Your task to perform on an android device: What's the weather going to be tomorrow? Image 0: 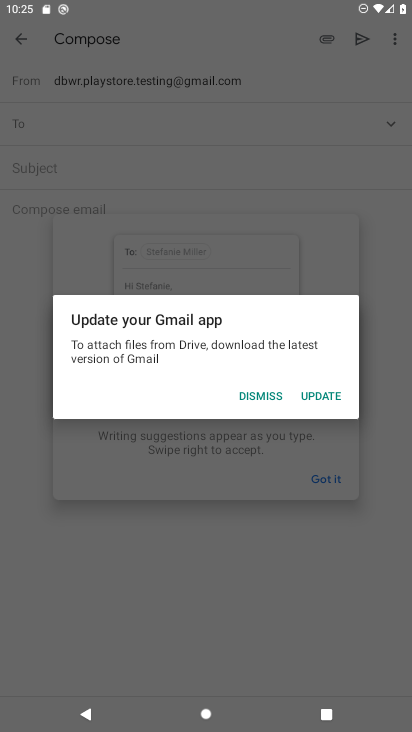
Step 0: press home button
Your task to perform on an android device: What's the weather going to be tomorrow? Image 1: 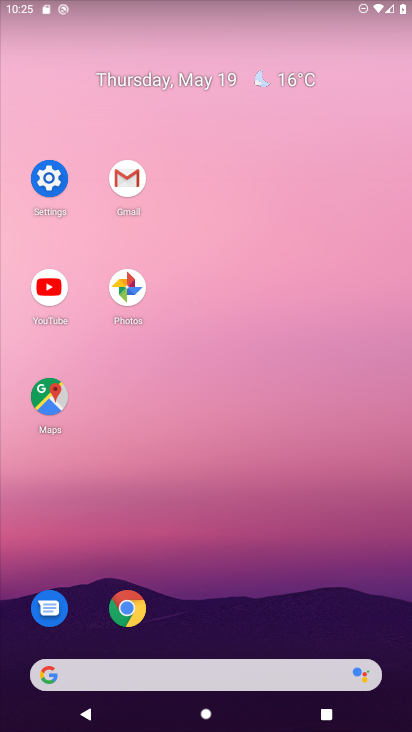
Step 1: drag from (244, 418) to (337, 90)
Your task to perform on an android device: What's the weather going to be tomorrow? Image 2: 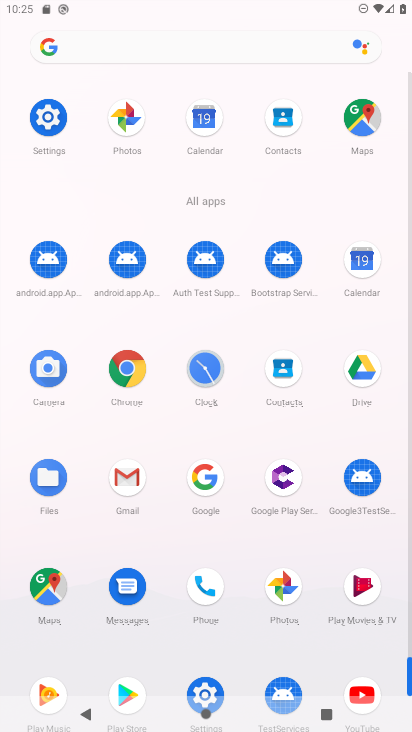
Step 2: click (206, 486)
Your task to perform on an android device: What's the weather going to be tomorrow? Image 3: 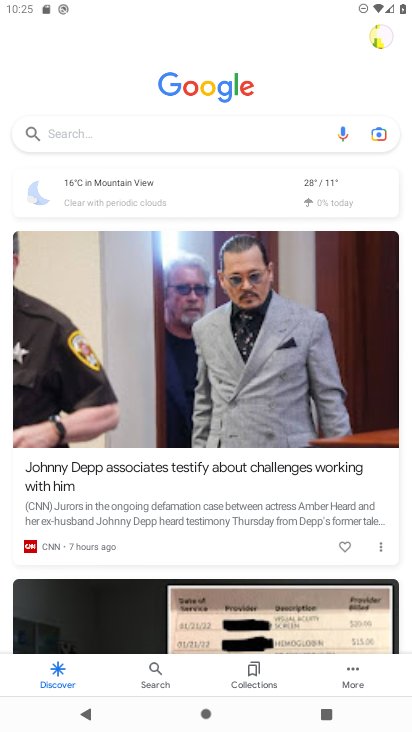
Step 3: click (112, 186)
Your task to perform on an android device: What's the weather going to be tomorrow? Image 4: 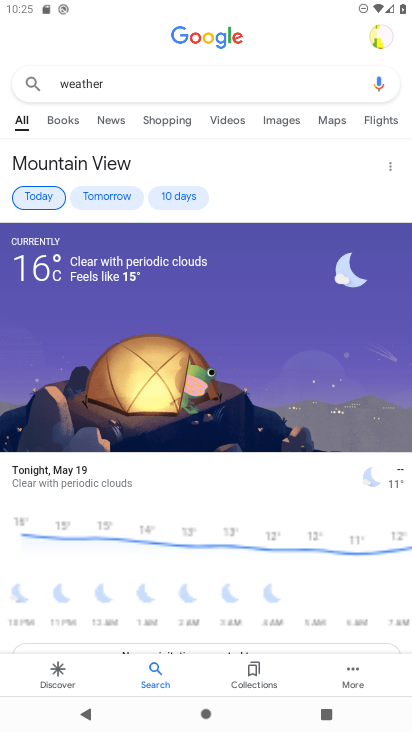
Step 4: click (110, 193)
Your task to perform on an android device: What's the weather going to be tomorrow? Image 5: 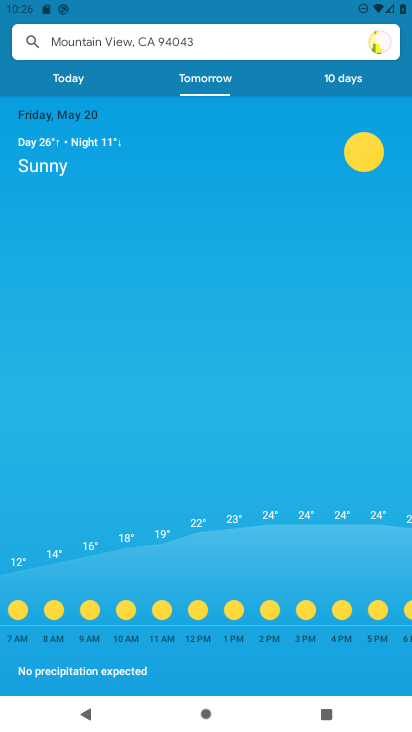
Step 5: task complete